Your task to perform on an android device: Go to network settings Image 0: 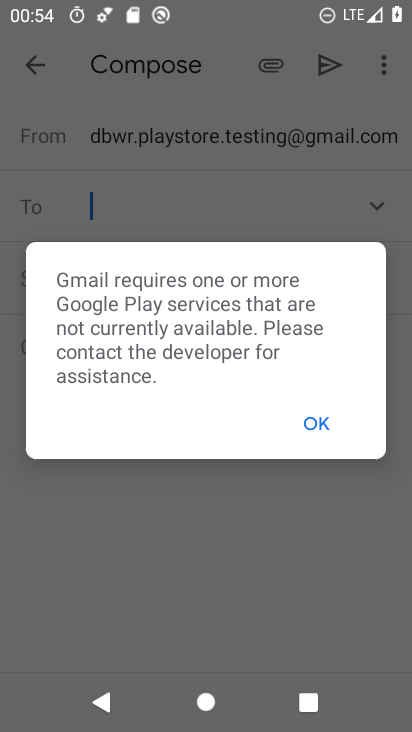
Step 0: press home button
Your task to perform on an android device: Go to network settings Image 1: 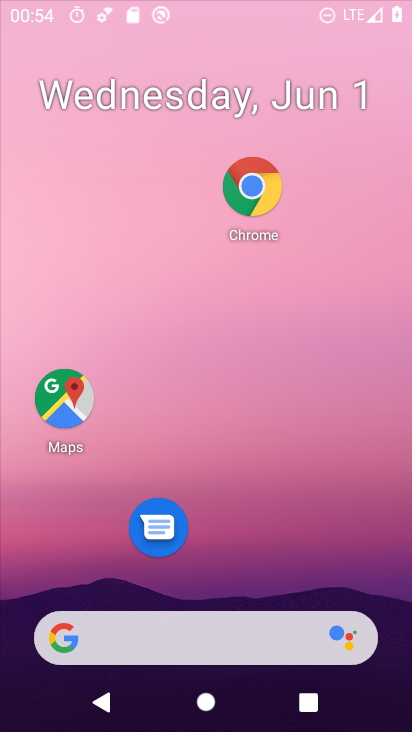
Step 1: drag from (249, 609) to (308, 98)
Your task to perform on an android device: Go to network settings Image 2: 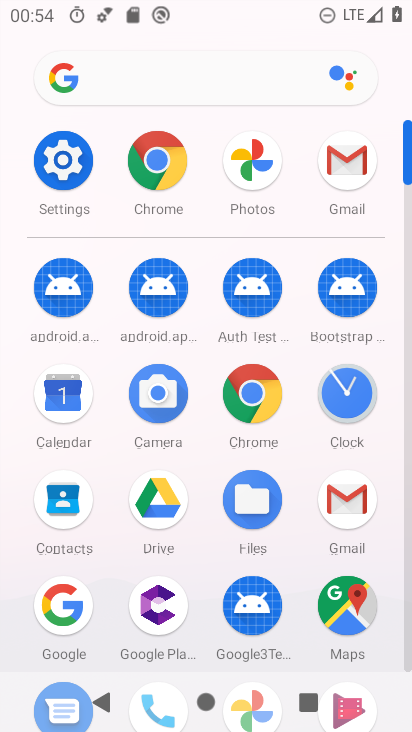
Step 2: click (57, 158)
Your task to perform on an android device: Go to network settings Image 3: 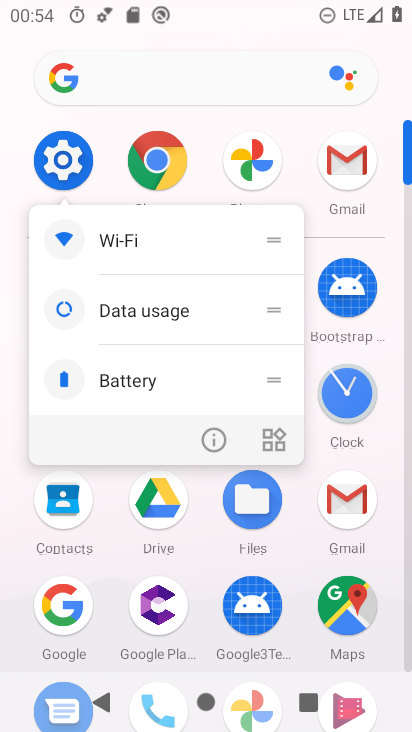
Step 3: click (219, 436)
Your task to perform on an android device: Go to network settings Image 4: 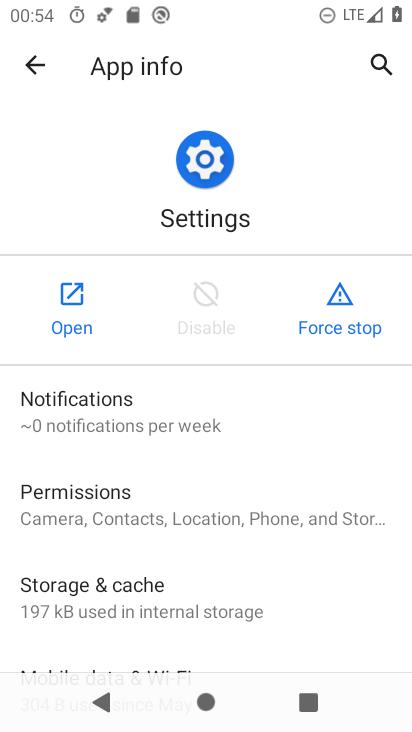
Step 4: click (59, 283)
Your task to perform on an android device: Go to network settings Image 5: 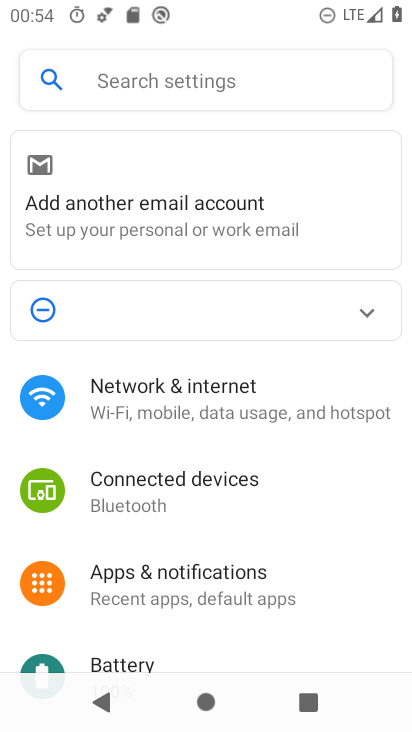
Step 5: click (205, 399)
Your task to perform on an android device: Go to network settings Image 6: 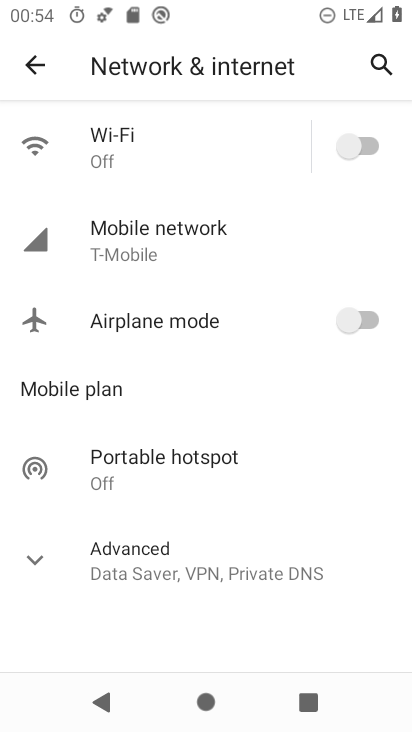
Step 6: task complete